Your task to perform on an android device: Go to CNN.com Image 0: 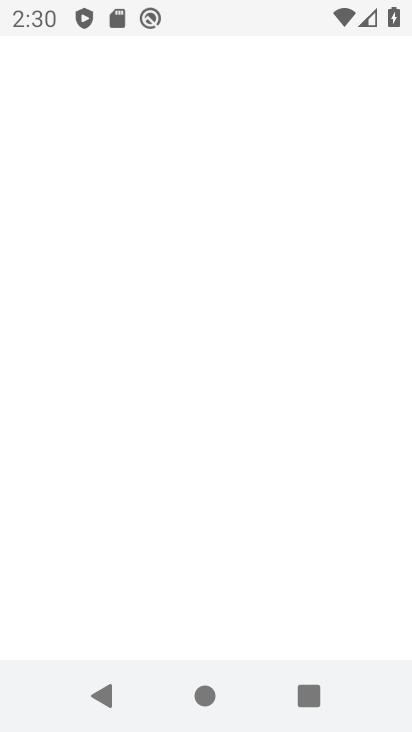
Step 0: drag from (39, 346) to (407, 292)
Your task to perform on an android device: Go to CNN.com Image 1: 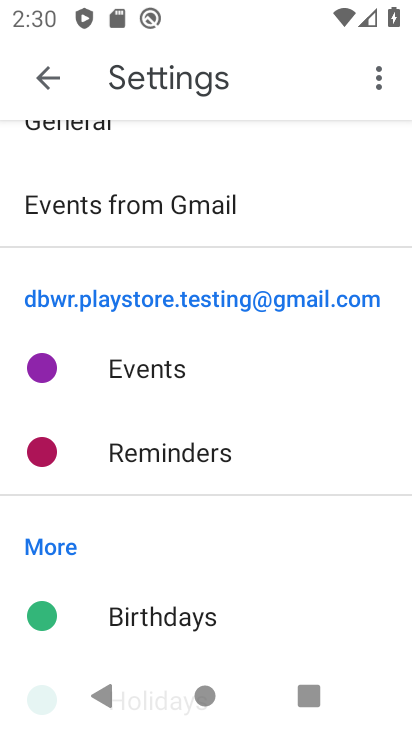
Step 1: press back button
Your task to perform on an android device: Go to CNN.com Image 2: 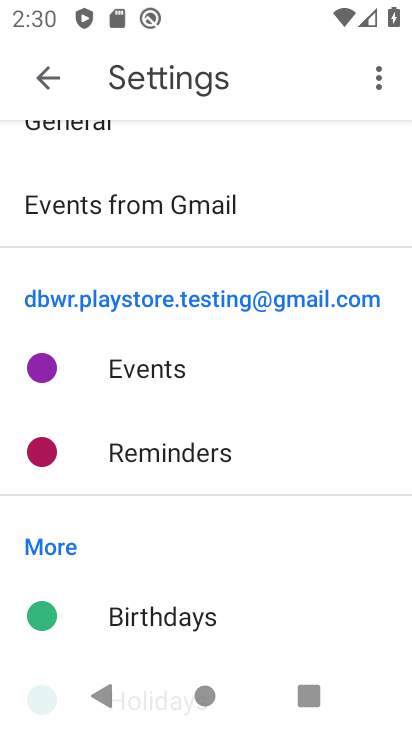
Step 2: click (410, 291)
Your task to perform on an android device: Go to CNN.com Image 3: 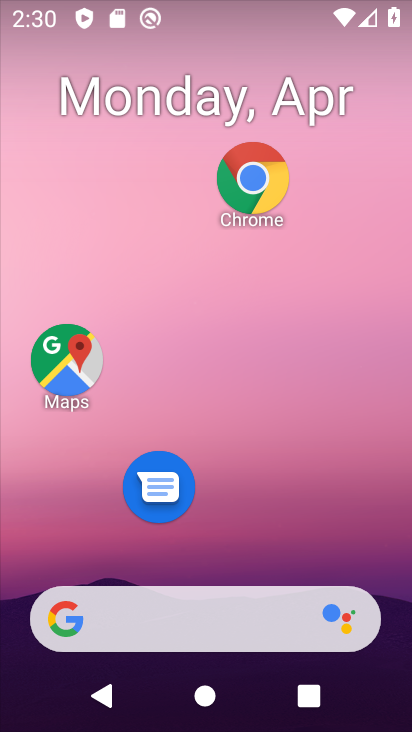
Step 3: click (276, 166)
Your task to perform on an android device: Go to CNN.com Image 4: 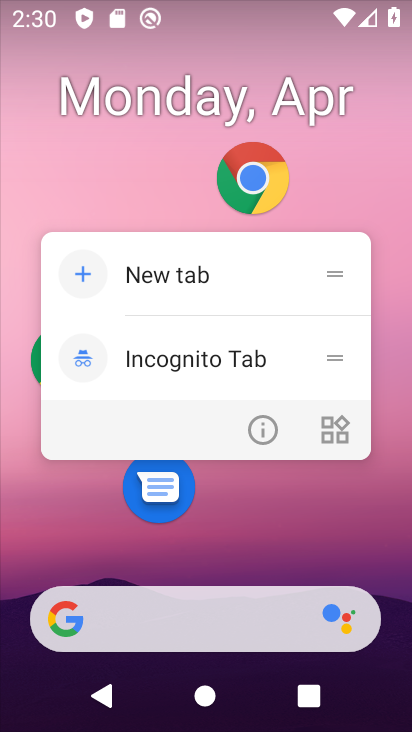
Step 4: click (276, 166)
Your task to perform on an android device: Go to CNN.com Image 5: 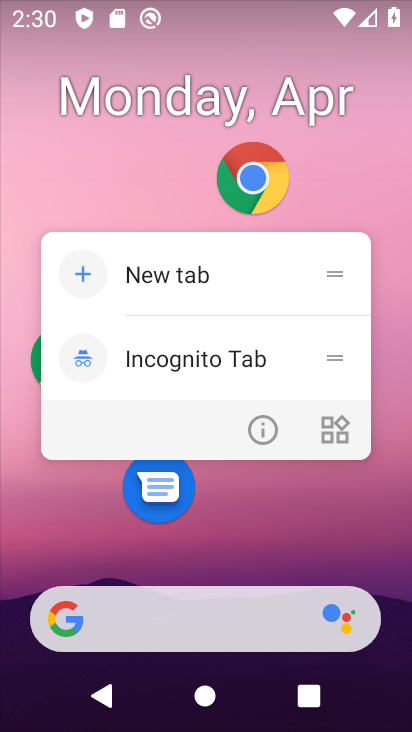
Step 5: click (276, 166)
Your task to perform on an android device: Go to CNN.com Image 6: 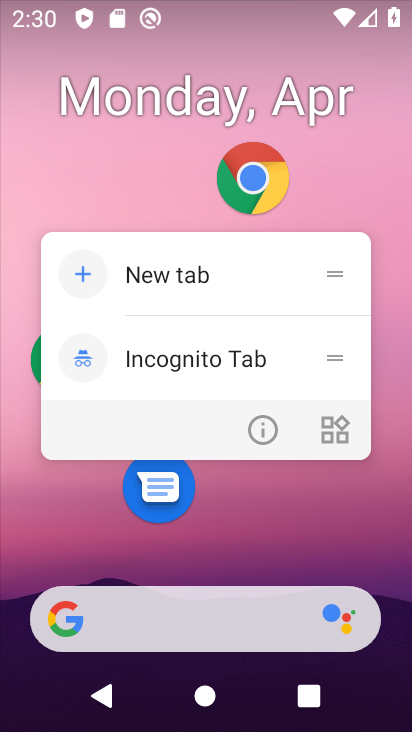
Step 6: click (265, 171)
Your task to perform on an android device: Go to CNN.com Image 7: 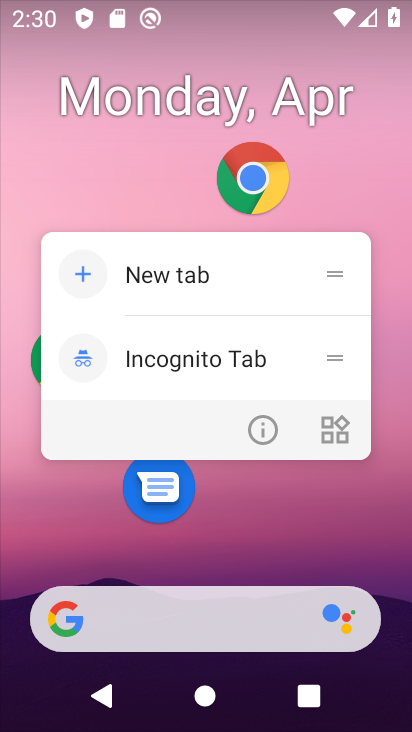
Step 7: click (265, 171)
Your task to perform on an android device: Go to CNN.com Image 8: 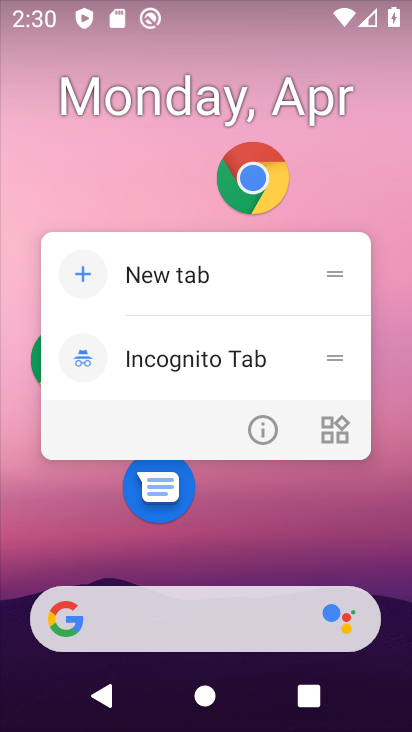
Step 8: click (265, 171)
Your task to perform on an android device: Go to CNN.com Image 9: 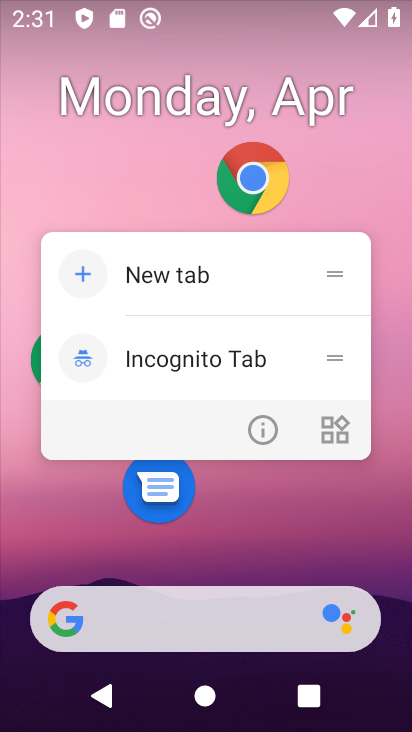
Step 9: click (265, 171)
Your task to perform on an android device: Go to CNN.com Image 10: 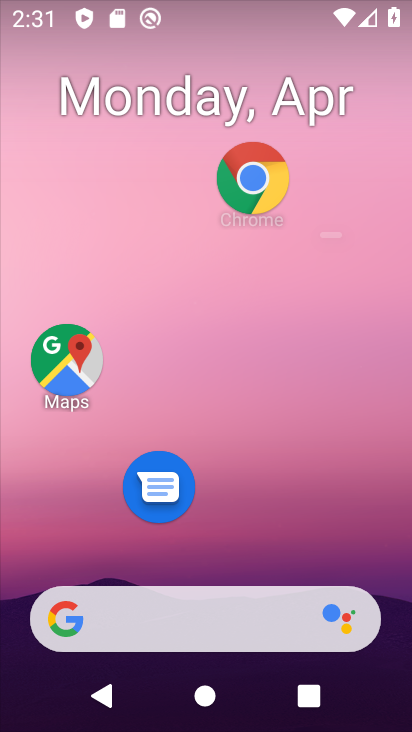
Step 10: click (265, 171)
Your task to perform on an android device: Go to CNN.com Image 11: 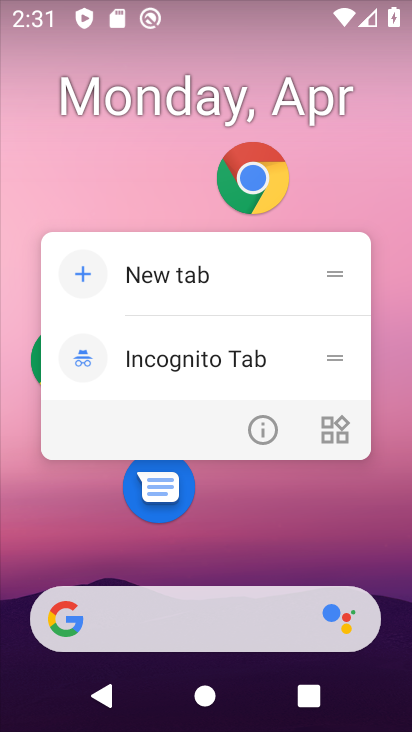
Step 11: click (265, 171)
Your task to perform on an android device: Go to CNN.com Image 12: 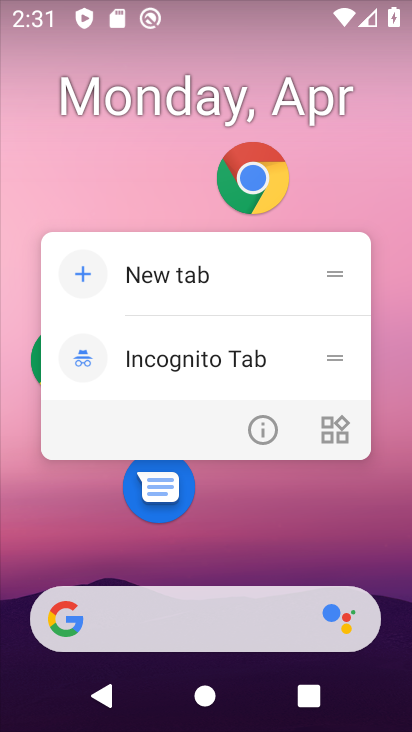
Step 12: click (265, 171)
Your task to perform on an android device: Go to CNN.com Image 13: 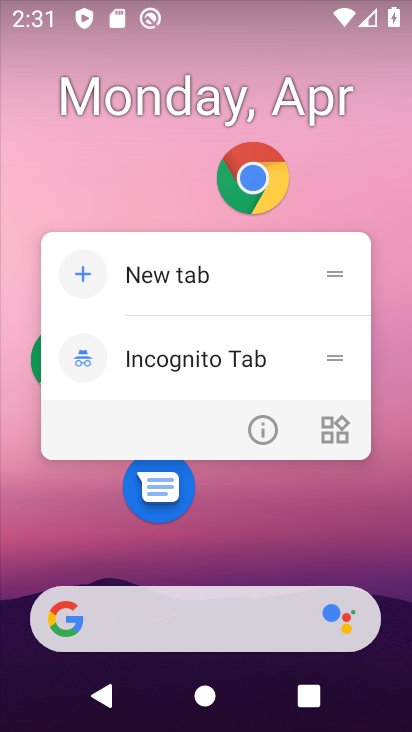
Step 13: click (265, 171)
Your task to perform on an android device: Go to CNN.com Image 14: 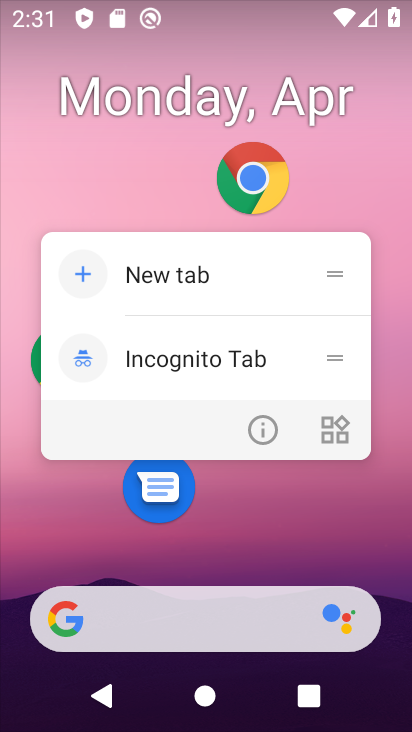
Step 14: click (265, 171)
Your task to perform on an android device: Go to CNN.com Image 15: 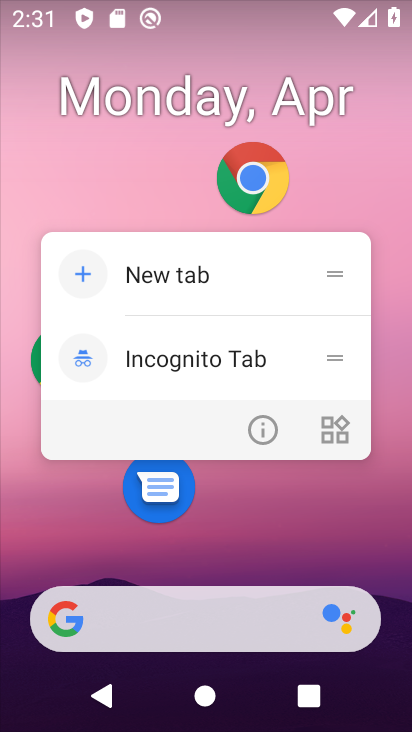
Step 15: click (265, 171)
Your task to perform on an android device: Go to CNN.com Image 16: 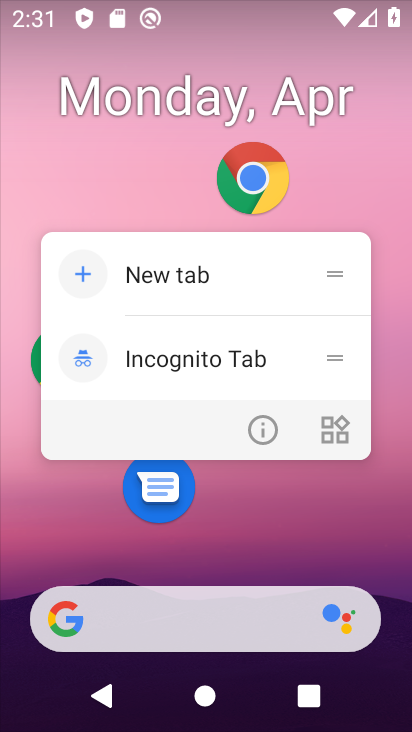
Step 16: click (265, 171)
Your task to perform on an android device: Go to CNN.com Image 17: 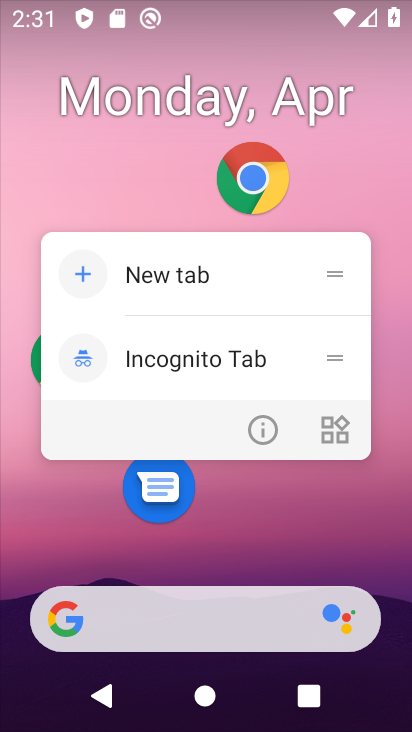
Step 17: click (265, 171)
Your task to perform on an android device: Go to CNN.com Image 18: 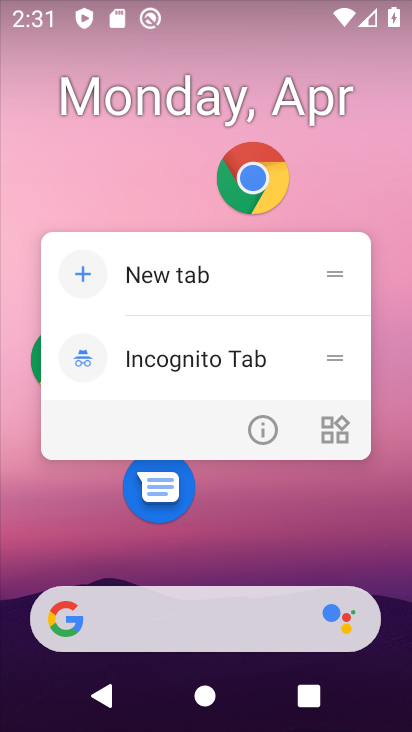
Step 18: click (265, 172)
Your task to perform on an android device: Go to CNN.com Image 19: 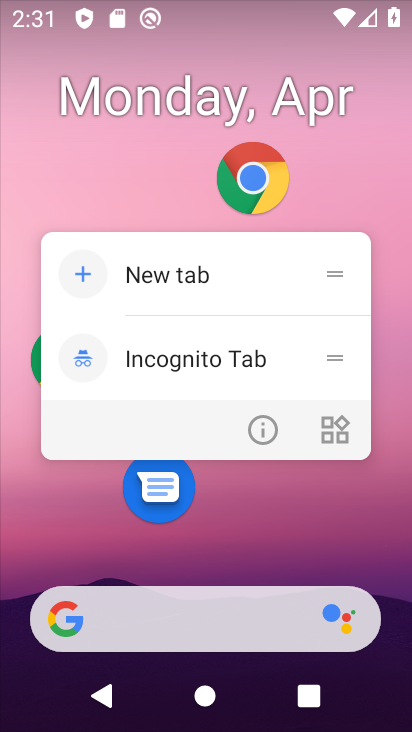
Step 19: click (265, 172)
Your task to perform on an android device: Go to CNN.com Image 20: 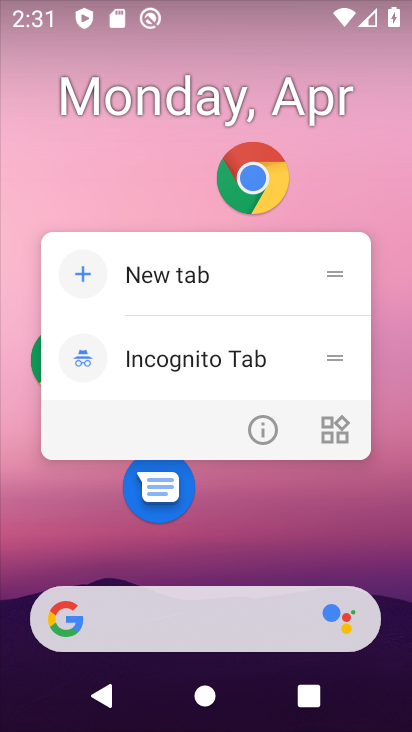
Step 20: click (265, 172)
Your task to perform on an android device: Go to CNN.com Image 21: 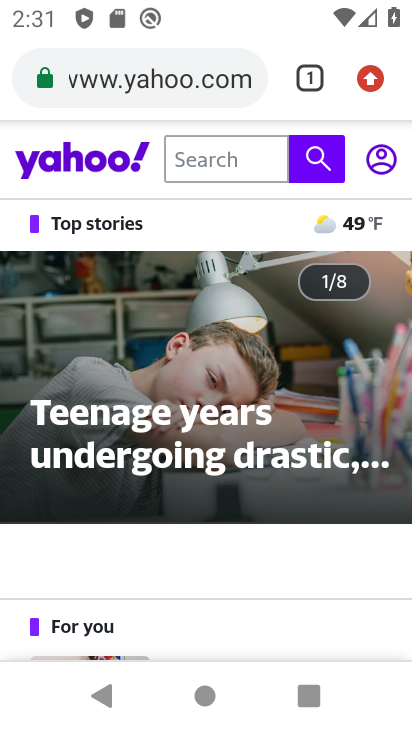
Step 21: click (370, 68)
Your task to perform on an android device: Go to CNN.com Image 22: 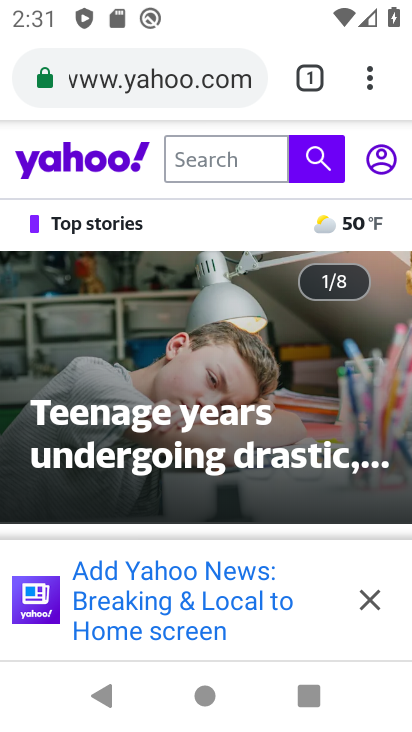
Step 22: click (369, 75)
Your task to perform on an android device: Go to CNN.com Image 23: 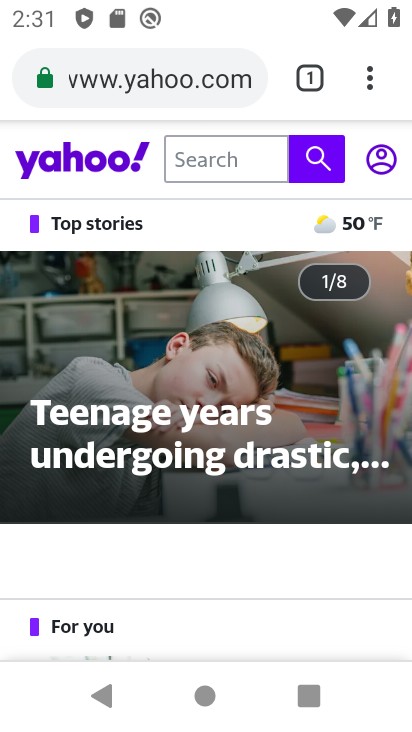
Step 23: click (369, 75)
Your task to perform on an android device: Go to CNN.com Image 24: 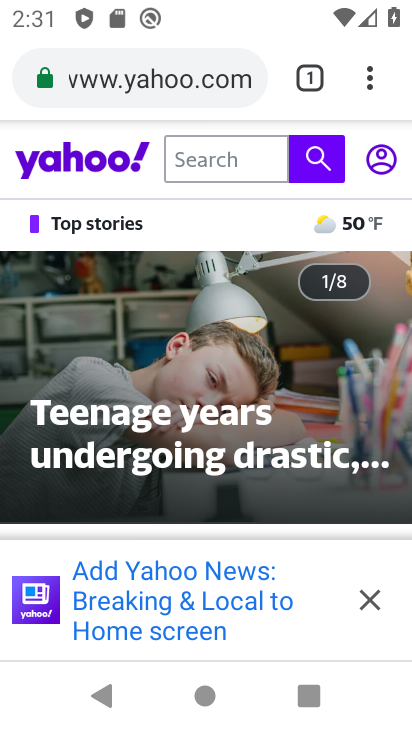
Step 24: click (369, 75)
Your task to perform on an android device: Go to CNN.com Image 25: 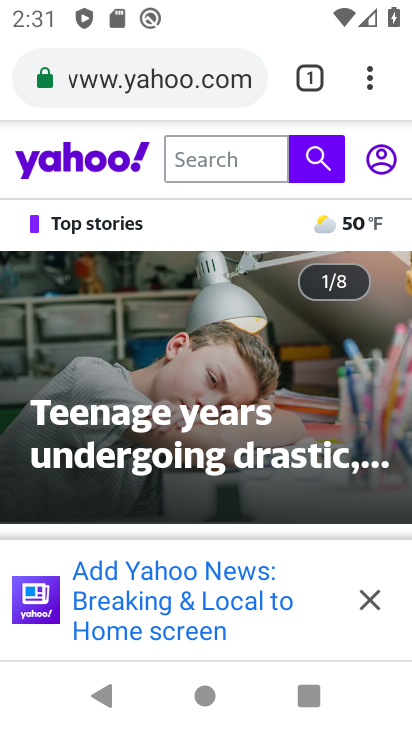
Step 25: click (369, 75)
Your task to perform on an android device: Go to CNN.com Image 26: 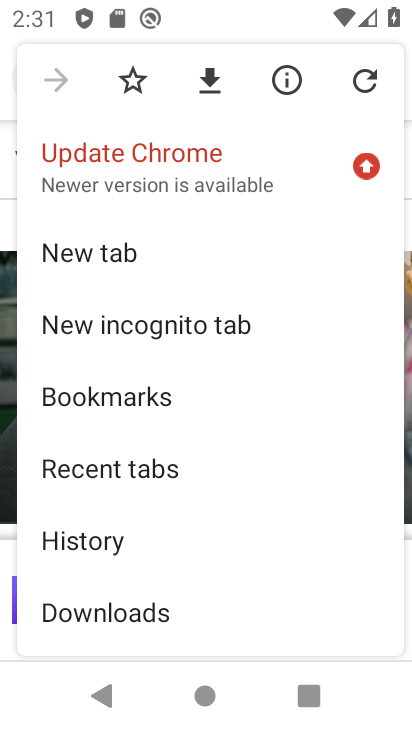
Step 26: click (156, 245)
Your task to perform on an android device: Go to CNN.com Image 27: 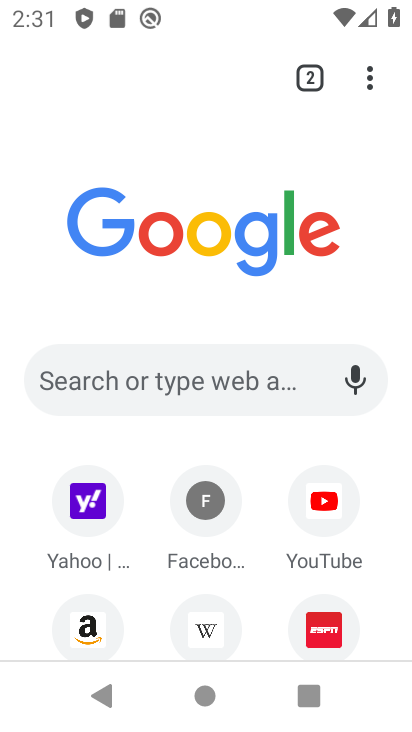
Step 27: click (141, 378)
Your task to perform on an android device: Go to CNN.com Image 28: 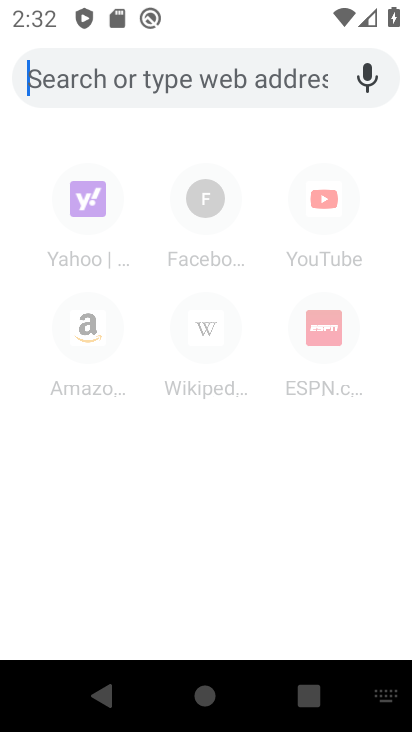
Step 28: click (202, 84)
Your task to perform on an android device: Go to CNN.com Image 29: 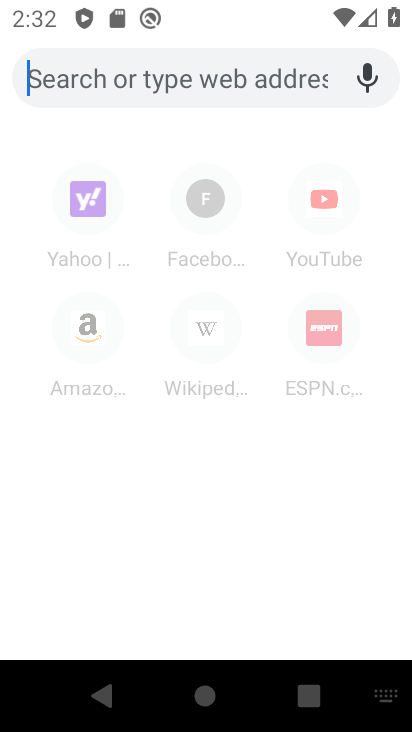
Step 29: type "cnn.com"
Your task to perform on an android device: Go to CNN.com Image 30: 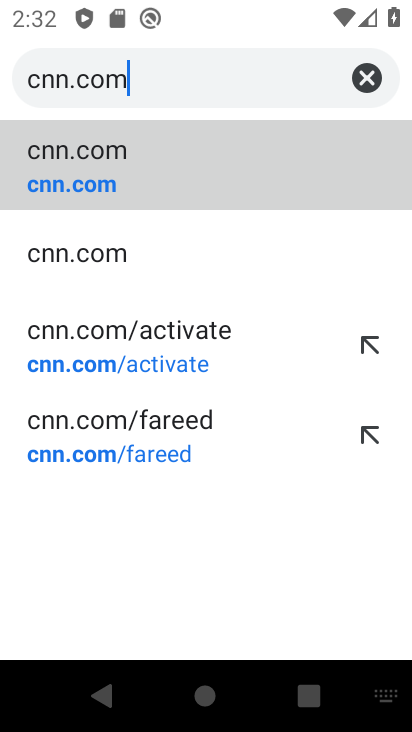
Step 30: click (45, 142)
Your task to perform on an android device: Go to CNN.com Image 31: 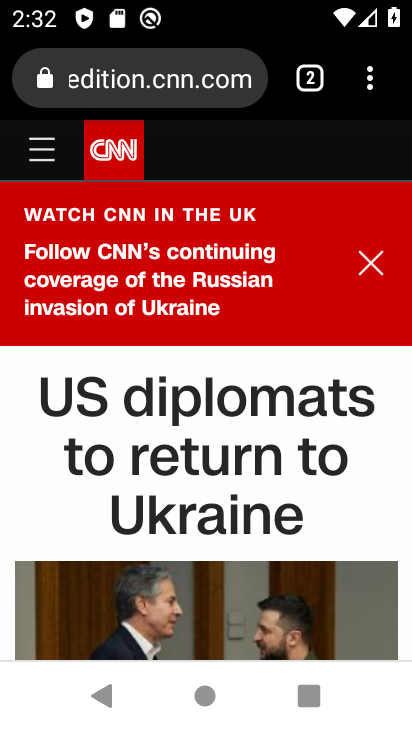
Step 31: task complete